Your task to perform on an android device: Check the news Image 0: 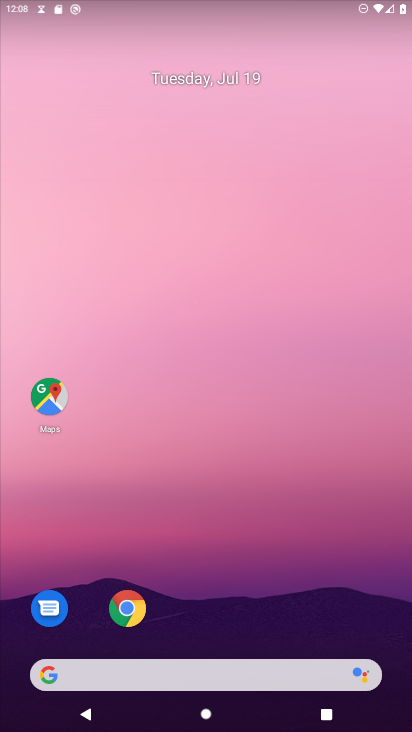
Step 0: drag from (268, 677) to (297, 27)
Your task to perform on an android device: Check the news Image 1: 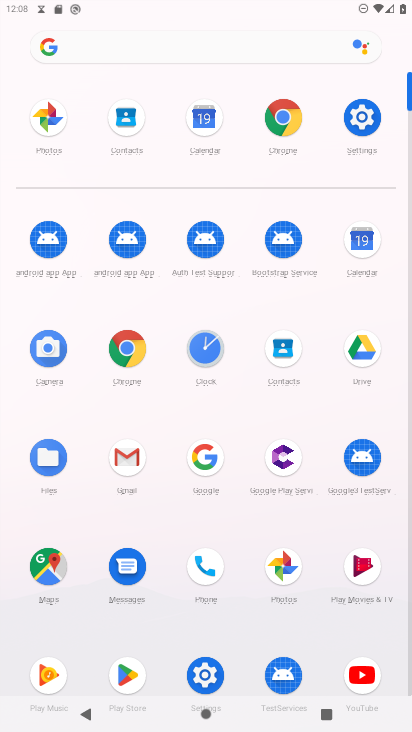
Step 1: click (133, 342)
Your task to perform on an android device: Check the news Image 2: 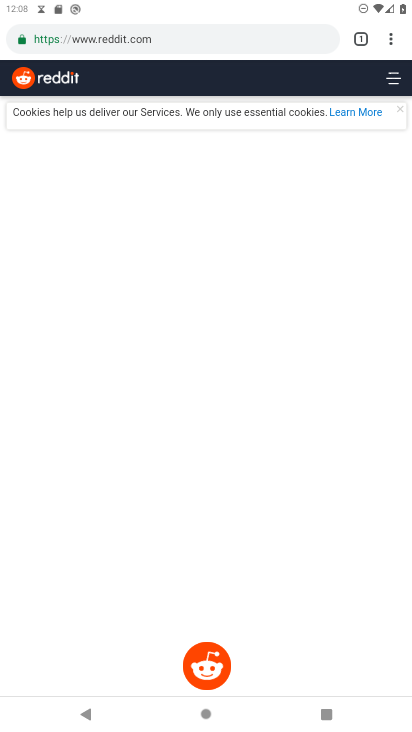
Step 2: click (196, 46)
Your task to perform on an android device: Check the news Image 3: 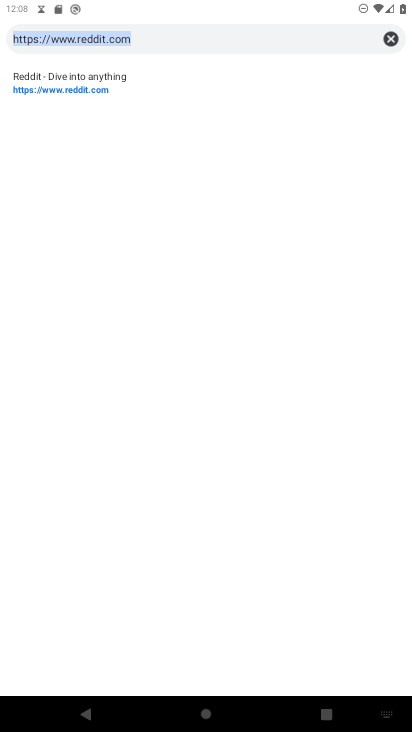
Step 3: type "check the news"
Your task to perform on an android device: Check the news Image 4: 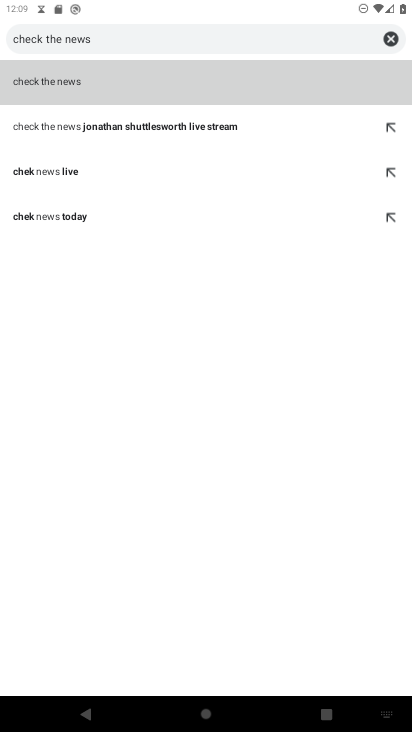
Step 4: click (185, 86)
Your task to perform on an android device: Check the news Image 5: 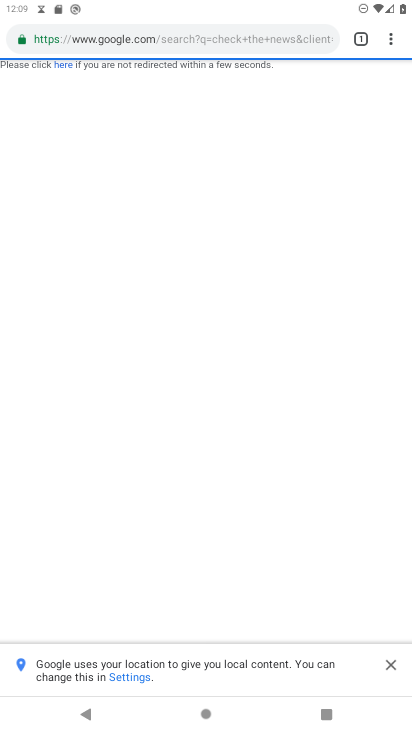
Step 5: task complete